Your task to perform on an android device: Open the stopwatch Image 0: 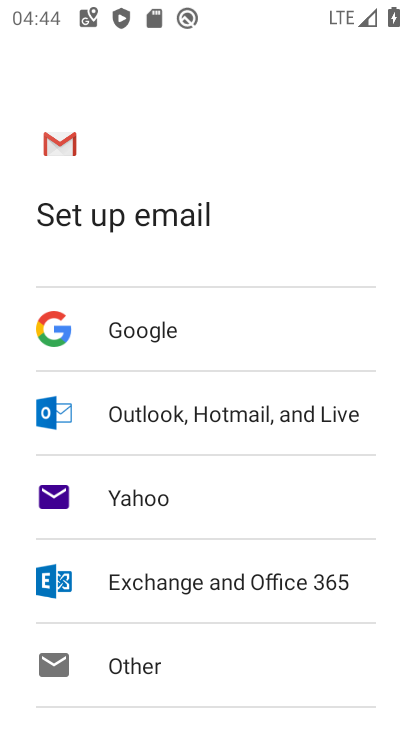
Step 0: press back button
Your task to perform on an android device: Open the stopwatch Image 1: 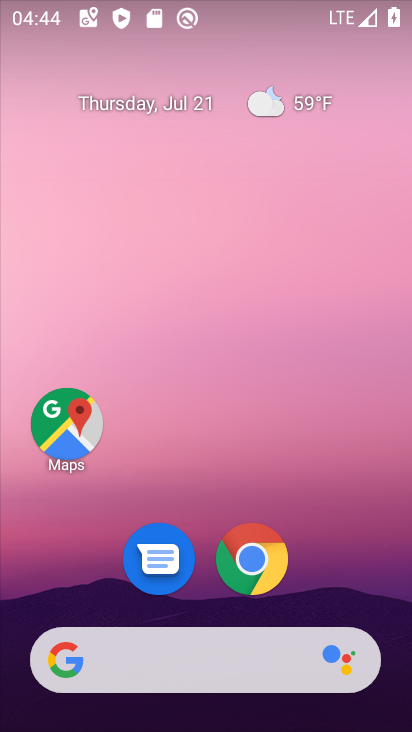
Step 1: drag from (111, 575) to (276, 24)
Your task to perform on an android device: Open the stopwatch Image 2: 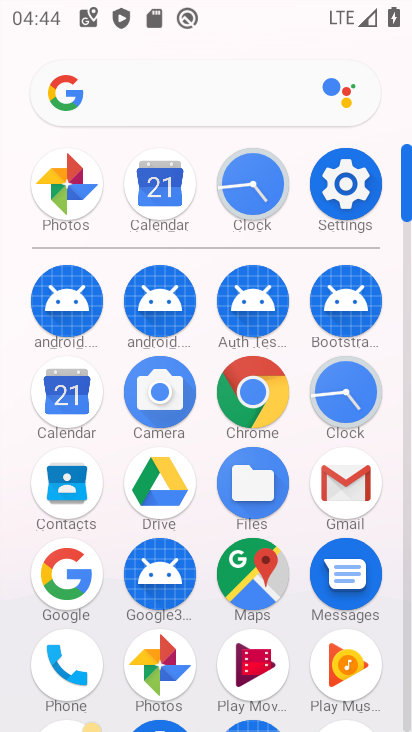
Step 2: click (338, 402)
Your task to perform on an android device: Open the stopwatch Image 3: 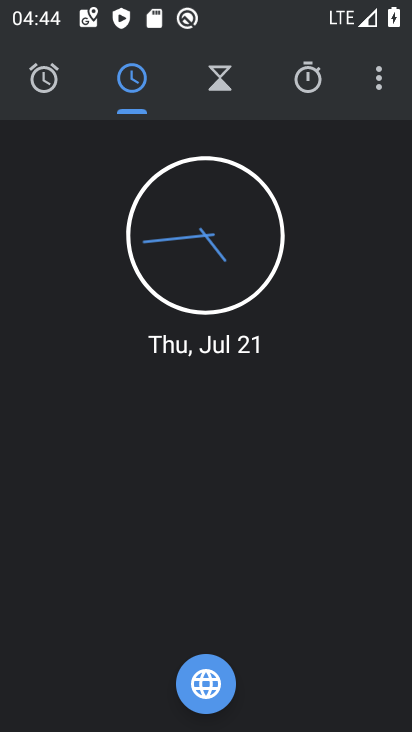
Step 3: click (315, 70)
Your task to perform on an android device: Open the stopwatch Image 4: 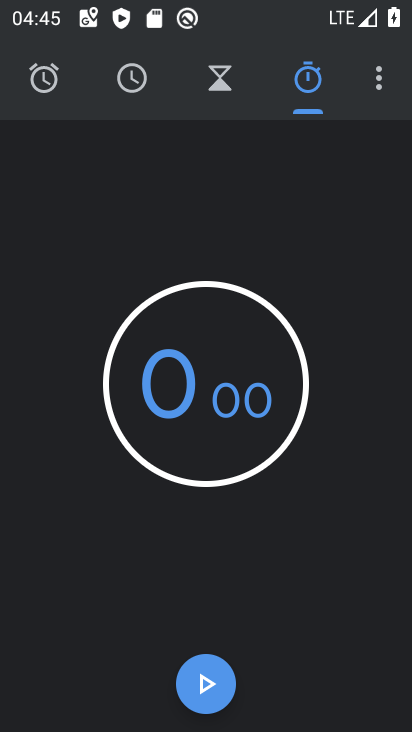
Step 4: task complete